Your task to perform on an android device: set an alarm Image 0: 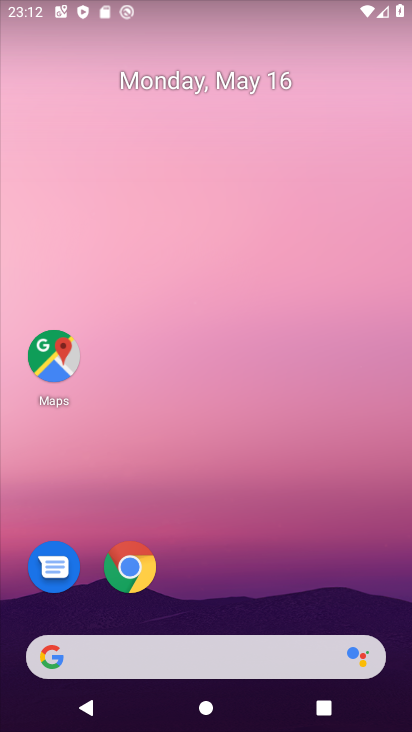
Step 0: drag from (251, 527) to (185, 95)
Your task to perform on an android device: set an alarm Image 1: 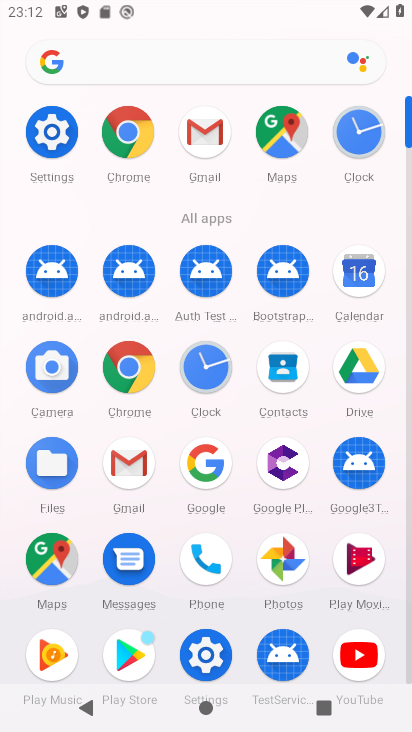
Step 1: click (349, 137)
Your task to perform on an android device: set an alarm Image 2: 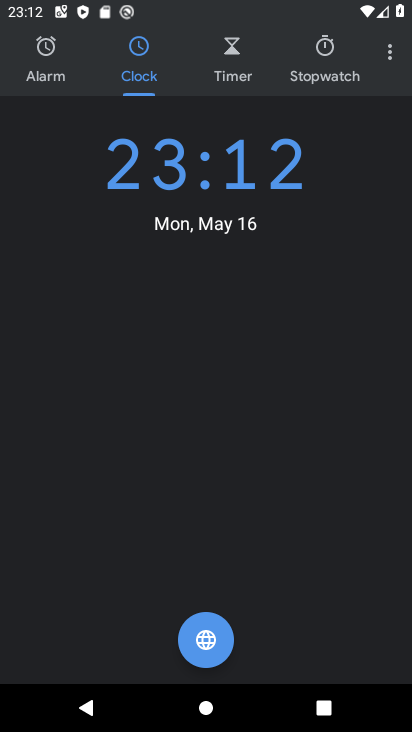
Step 2: click (49, 66)
Your task to perform on an android device: set an alarm Image 3: 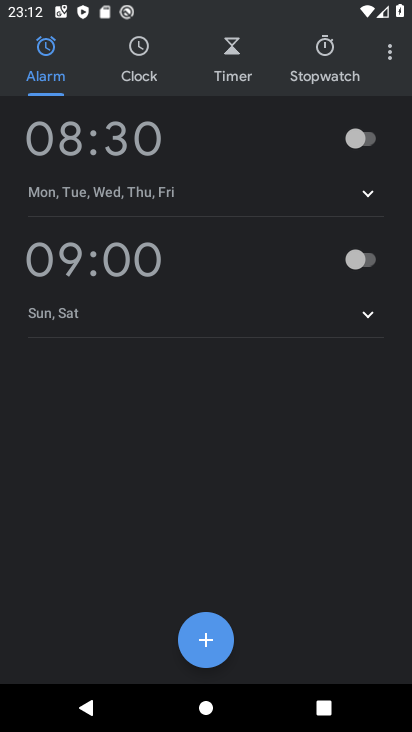
Step 3: click (201, 634)
Your task to perform on an android device: set an alarm Image 4: 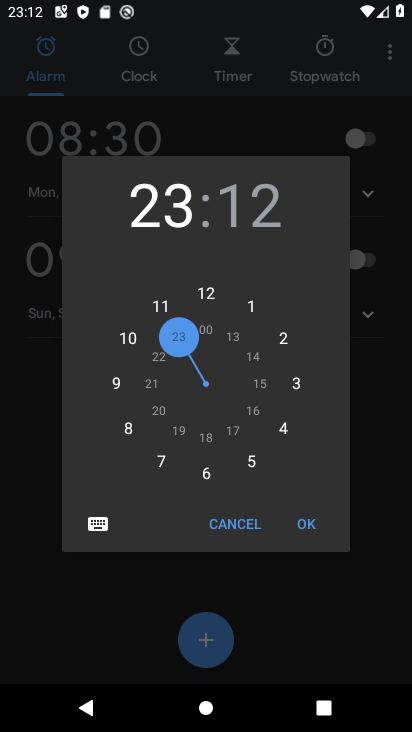
Step 4: click (307, 523)
Your task to perform on an android device: set an alarm Image 5: 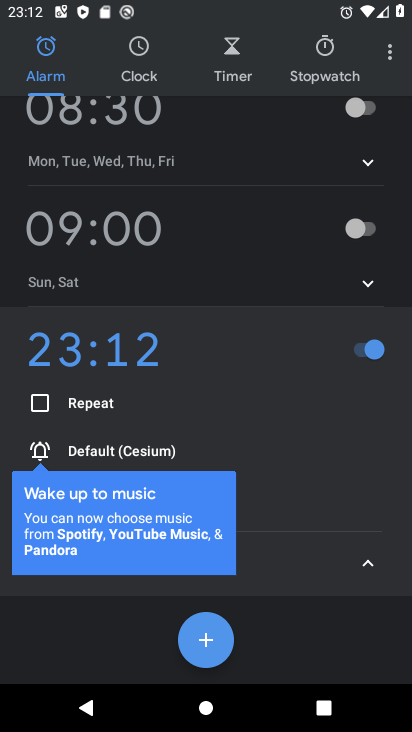
Step 5: task complete